Your task to perform on an android device: Go to Maps Image 0: 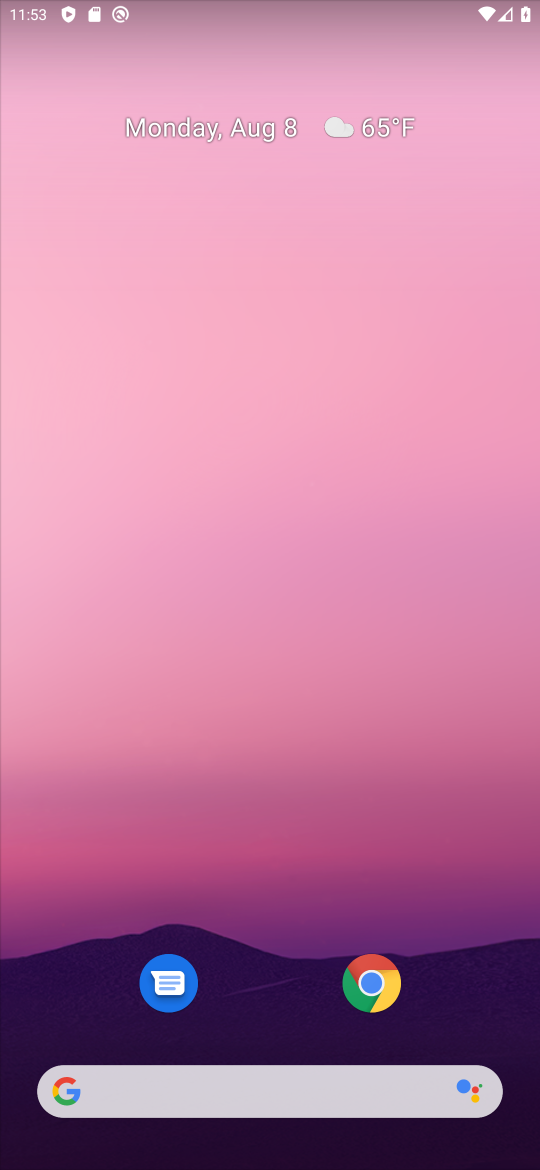
Step 0: drag from (329, 1039) to (432, 143)
Your task to perform on an android device: Go to Maps Image 1: 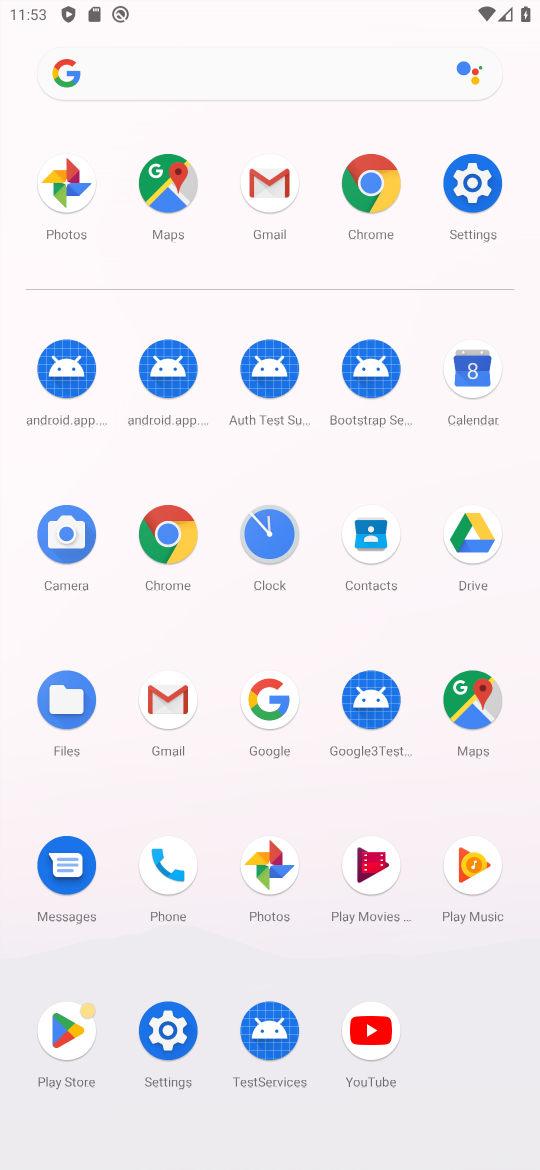
Step 1: click (453, 701)
Your task to perform on an android device: Go to Maps Image 2: 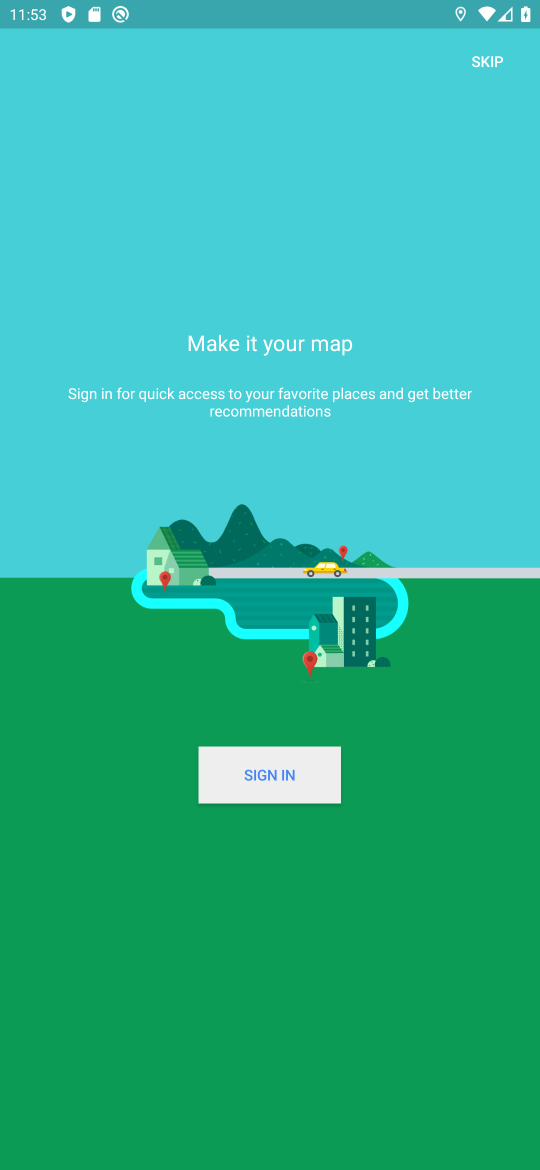
Step 2: task complete